Your task to perform on an android device: make emails show in primary in the gmail app Image 0: 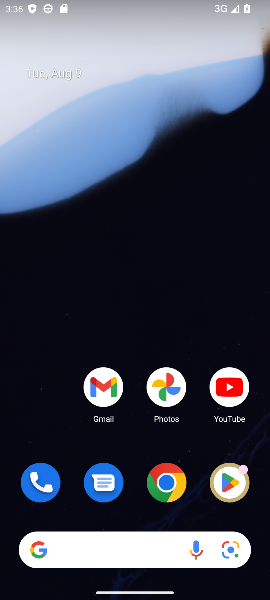
Step 0: click (108, 384)
Your task to perform on an android device: make emails show in primary in the gmail app Image 1: 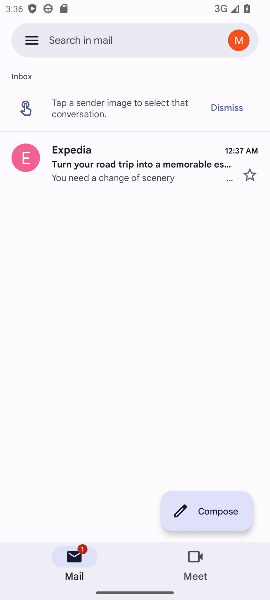
Step 1: click (24, 41)
Your task to perform on an android device: make emails show in primary in the gmail app Image 2: 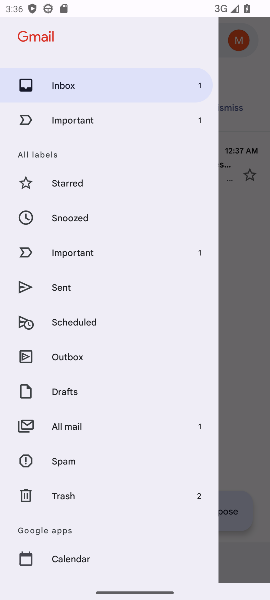
Step 2: drag from (79, 539) to (94, 296)
Your task to perform on an android device: make emails show in primary in the gmail app Image 3: 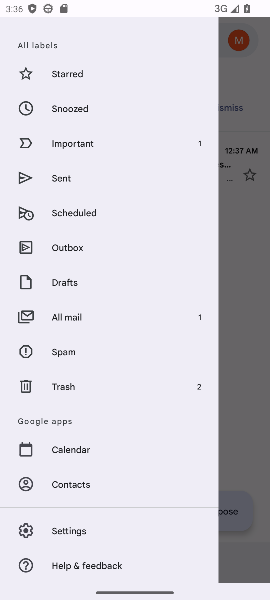
Step 3: click (85, 531)
Your task to perform on an android device: make emails show in primary in the gmail app Image 4: 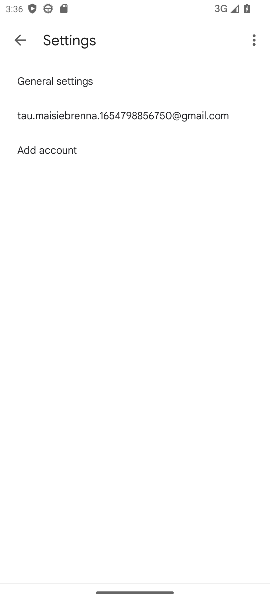
Step 4: click (85, 124)
Your task to perform on an android device: make emails show in primary in the gmail app Image 5: 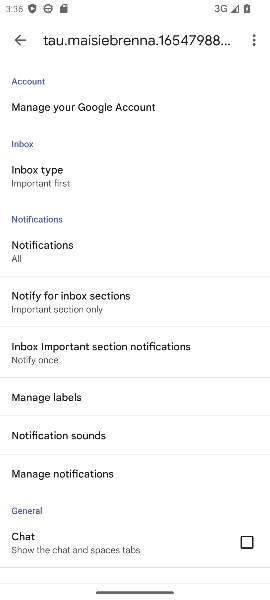
Step 5: click (81, 178)
Your task to perform on an android device: make emails show in primary in the gmail app Image 6: 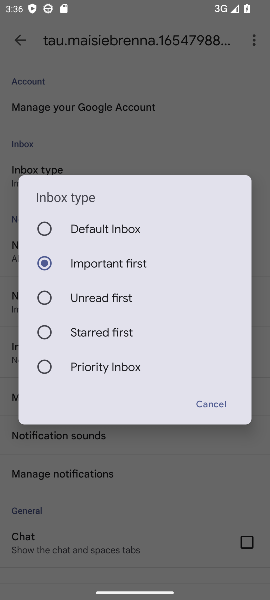
Step 6: click (99, 222)
Your task to perform on an android device: make emails show in primary in the gmail app Image 7: 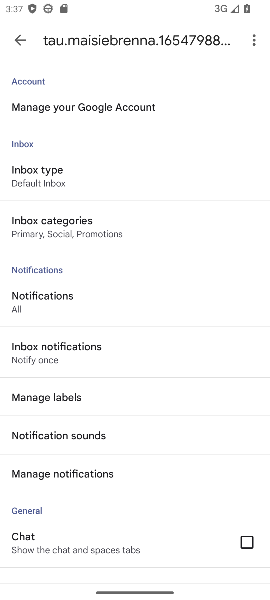
Step 7: task complete